Your task to perform on an android device: check the backup settings in the google photos Image 0: 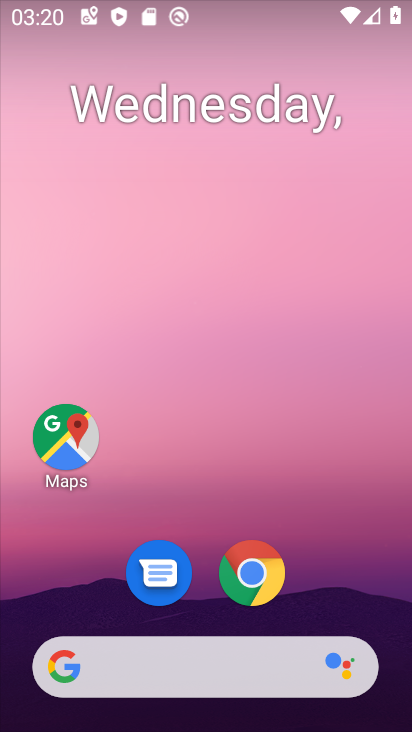
Step 0: drag from (338, 572) to (261, 132)
Your task to perform on an android device: check the backup settings in the google photos Image 1: 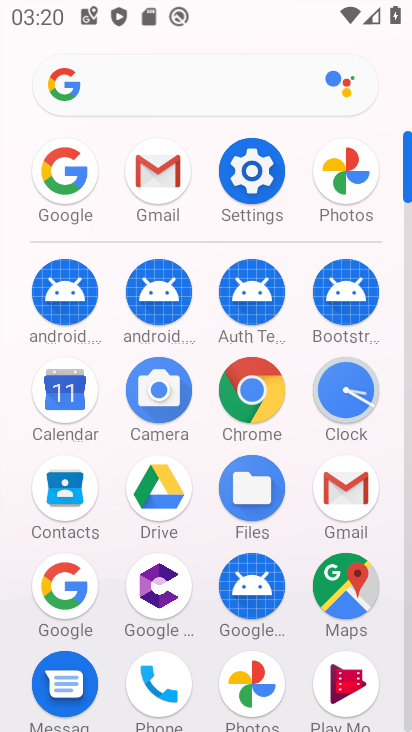
Step 1: click (345, 176)
Your task to perform on an android device: check the backup settings in the google photos Image 2: 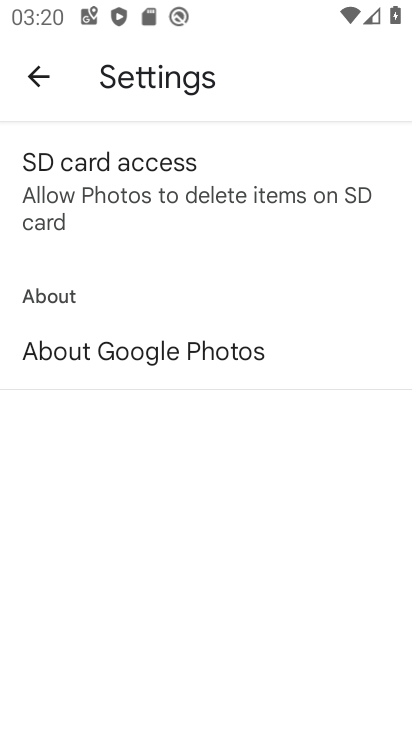
Step 2: press back button
Your task to perform on an android device: check the backup settings in the google photos Image 3: 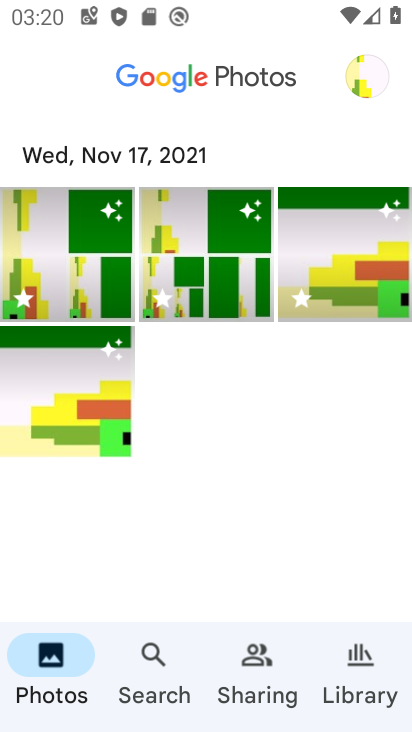
Step 3: click (369, 84)
Your task to perform on an android device: check the backup settings in the google photos Image 4: 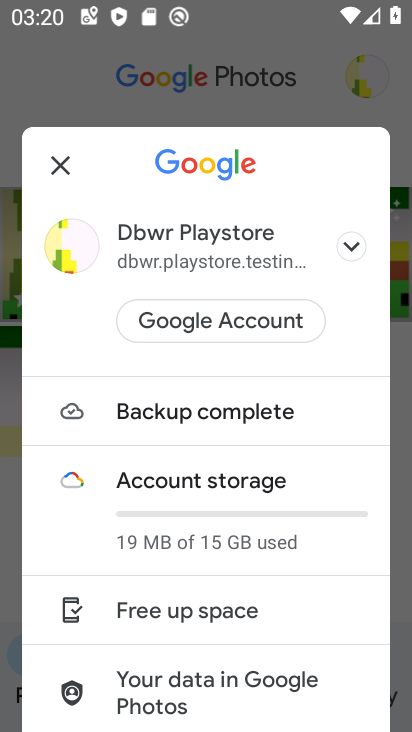
Step 4: drag from (191, 634) to (207, 265)
Your task to perform on an android device: check the backup settings in the google photos Image 5: 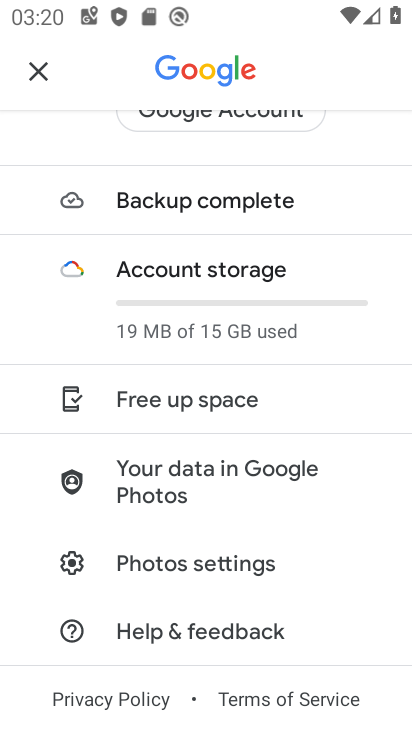
Step 5: click (181, 567)
Your task to perform on an android device: check the backup settings in the google photos Image 6: 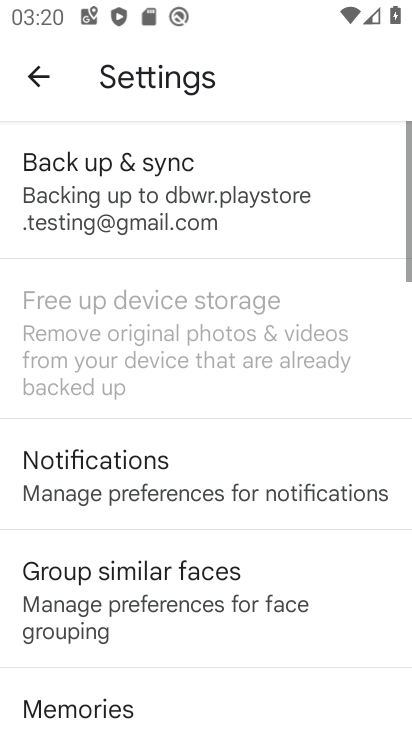
Step 6: click (98, 208)
Your task to perform on an android device: check the backup settings in the google photos Image 7: 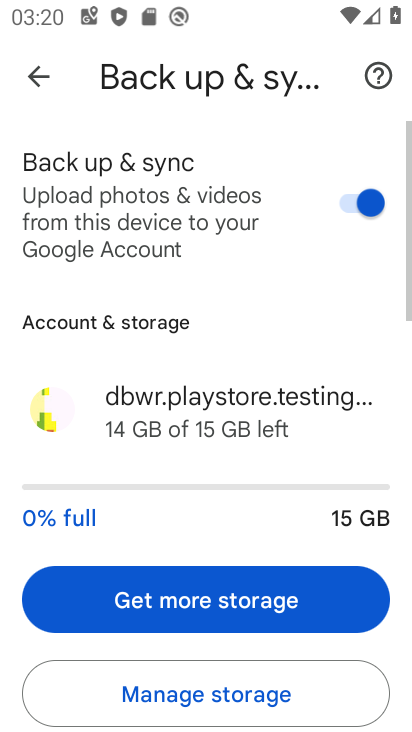
Step 7: task complete